Your task to perform on an android device: turn on the 24-hour format for clock Image 0: 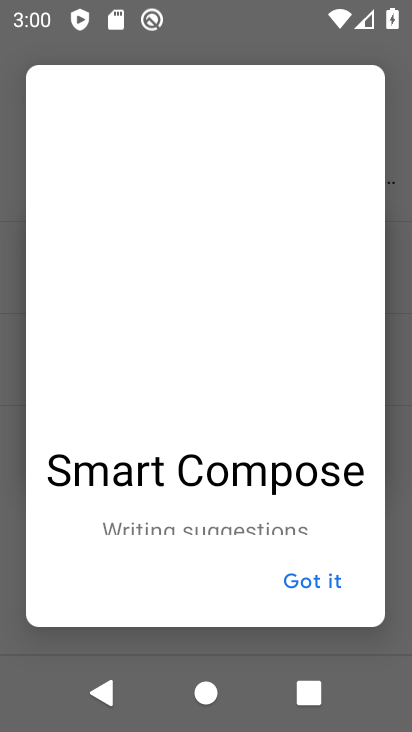
Step 0: press home button
Your task to perform on an android device: turn on the 24-hour format for clock Image 1: 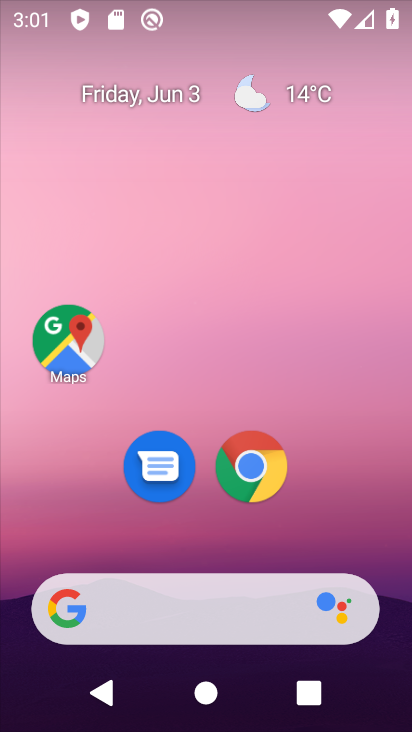
Step 1: drag from (205, 477) to (253, 80)
Your task to perform on an android device: turn on the 24-hour format for clock Image 2: 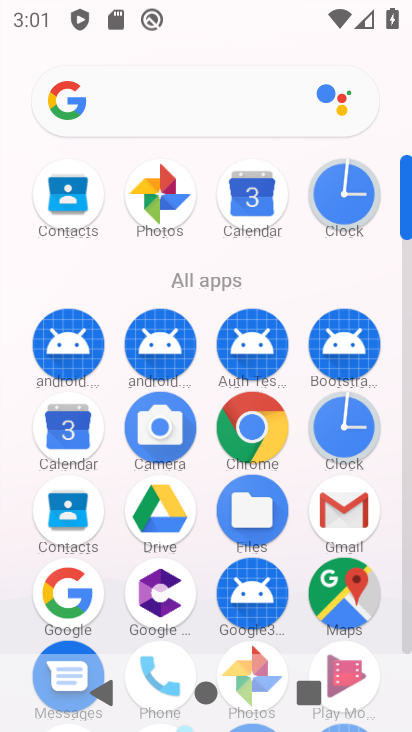
Step 2: click (343, 419)
Your task to perform on an android device: turn on the 24-hour format for clock Image 3: 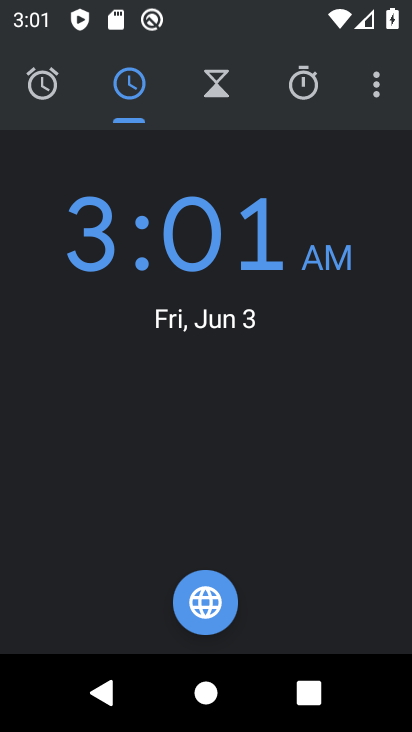
Step 3: click (374, 76)
Your task to perform on an android device: turn on the 24-hour format for clock Image 4: 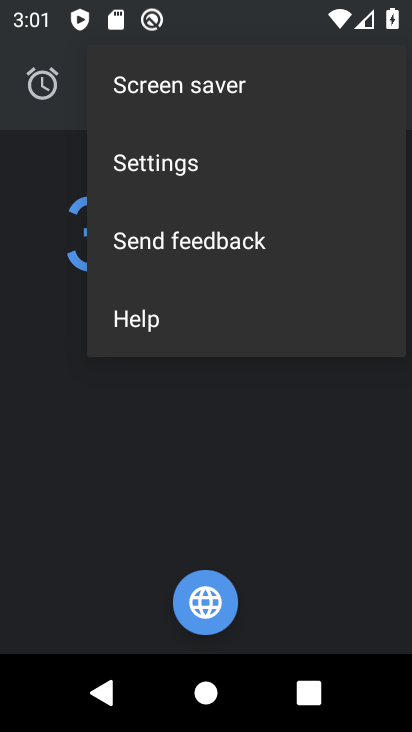
Step 4: click (210, 162)
Your task to perform on an android device: turn on the 24-hour format for clock Image 5: 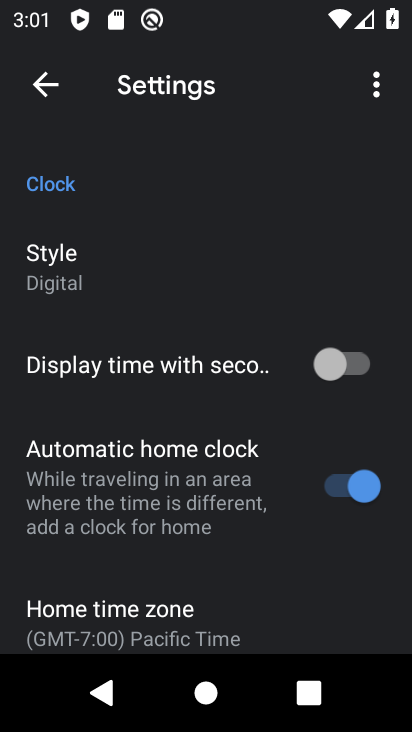
Step 5: click (245, 171)
Your task to perform on an android device: turn on the 24-hour format for clock Image 6: 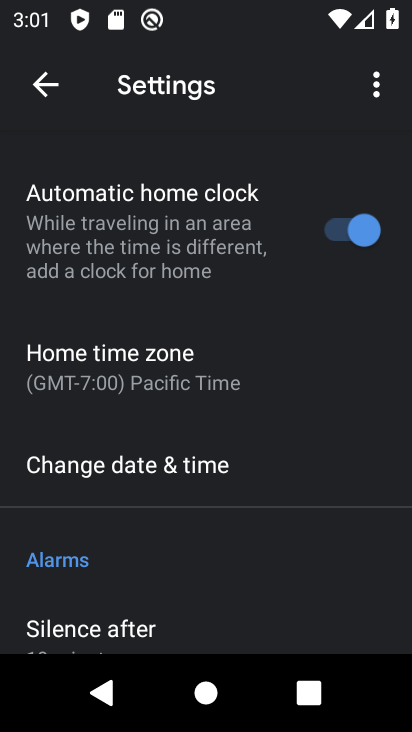
Step 6: click (253, 468)
Your task to perform on an android device: turn on the 24-hour format for clock Image 7: 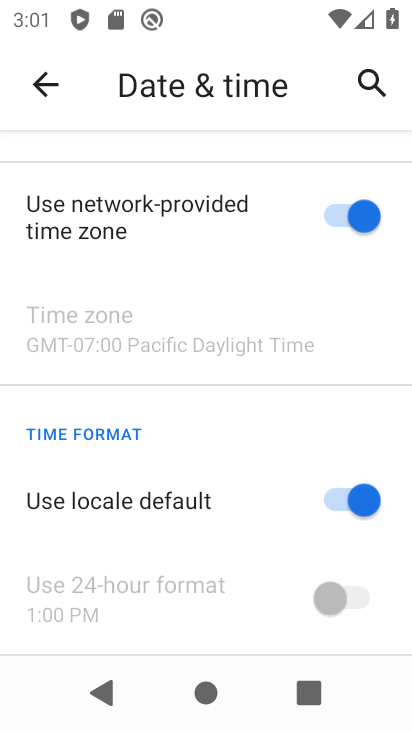
Step 7: drag from (264, 586) to (252, 217)
Your task to perform on an android device: turn on the 24-hour format for clock Image 8: 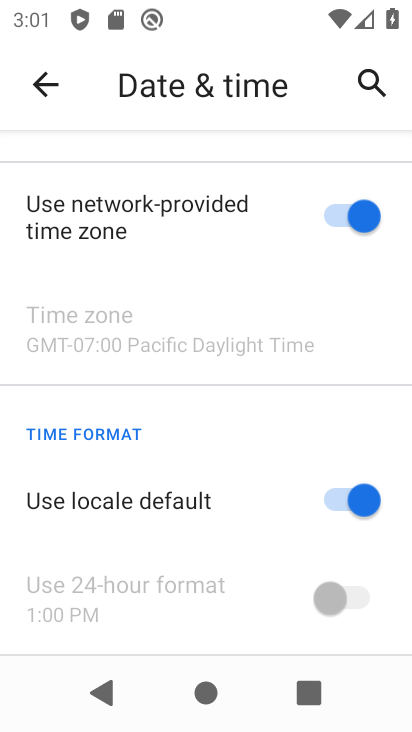
Step 8: click (354, 493)
Your task to perform on an android device: turn on the 24-hour format for clock Image 9: 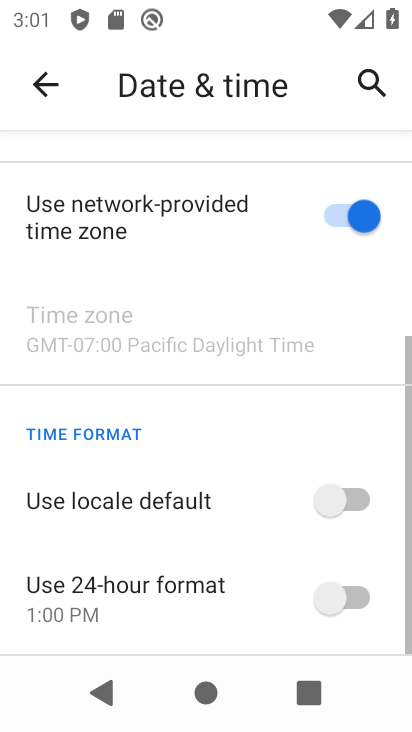
Step 9: click (350, 600)
Your task to perform on an android device: turn on the 24-hour format for clock Image 10: 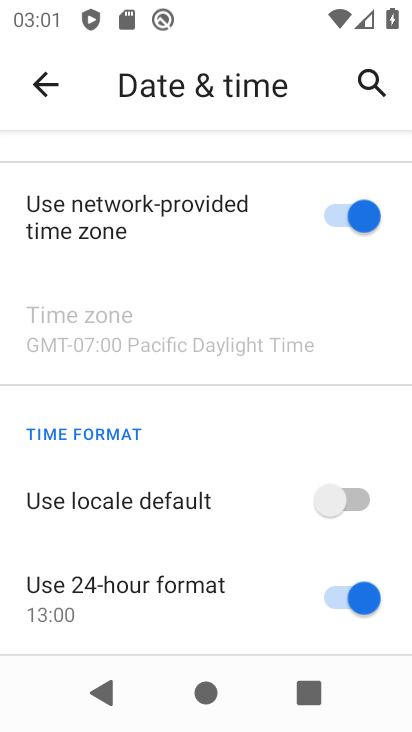
Step 10: task complete